Your task to perform on an android device: Open Wikipedia Image 0: 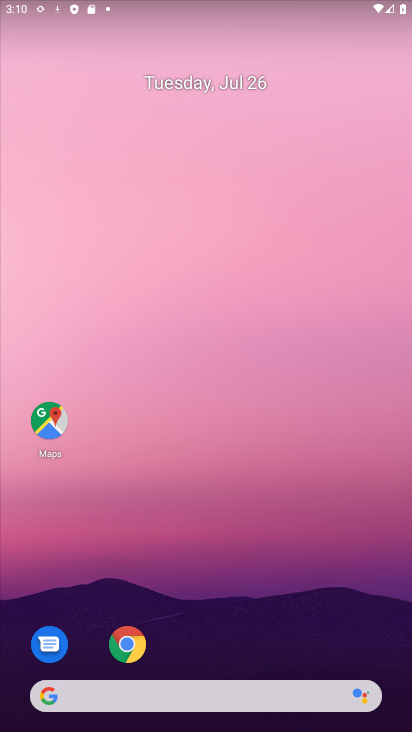
Step 0: click (127, 644)
Your task to perform on an android device: Open Wikipedia Image 1: 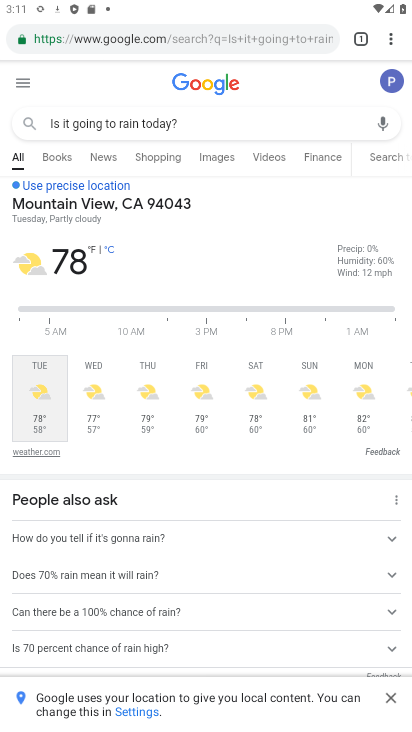
Step 1: click (354, 47)
Your task to perform on an android device: Open Wikipedia Image 2: 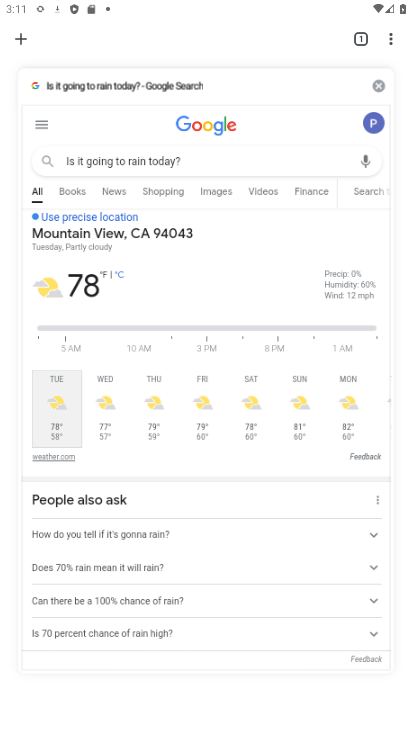
Step 2: click (18, 39)
Your task to perform on an android device: Open Wikipedia Image 3: 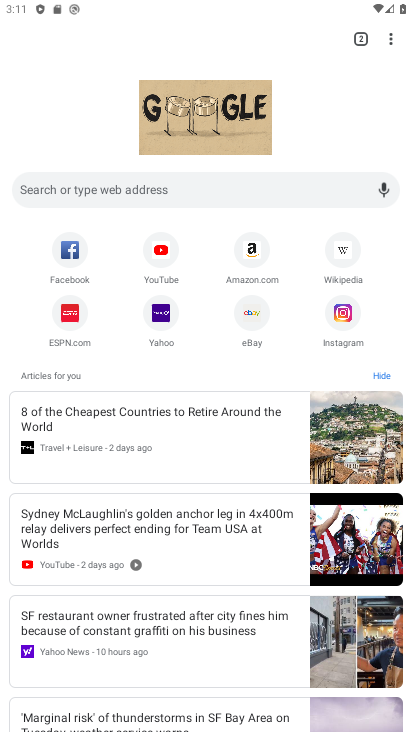
Step 3: click (342, 257)
Your task to perform on an android device: Open Wikipedia Image 4: 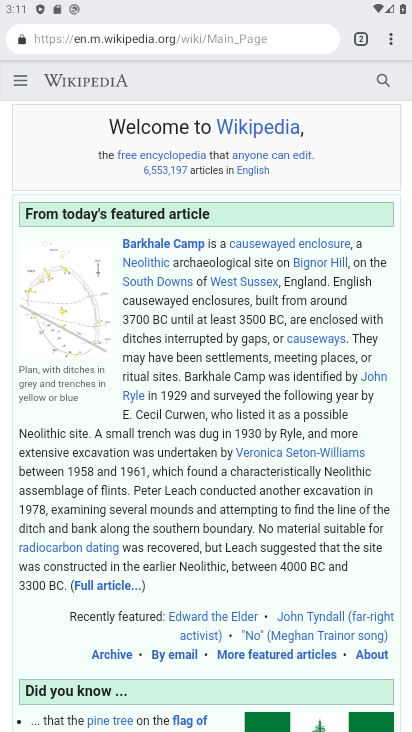
Step 4: task complete